Your task to perform on an android device: install app "Walmart Shopping & Grocery" Image 0: 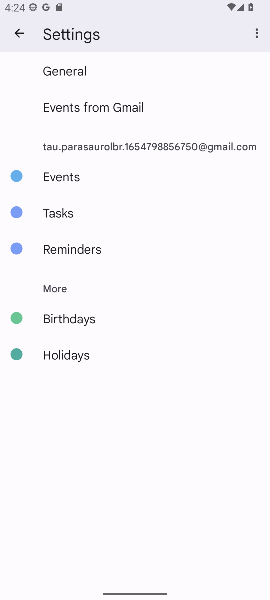
Step 0: press home button
Your task to perform on an android device: install app "Walmart Shopping & Grocery" Image 1: 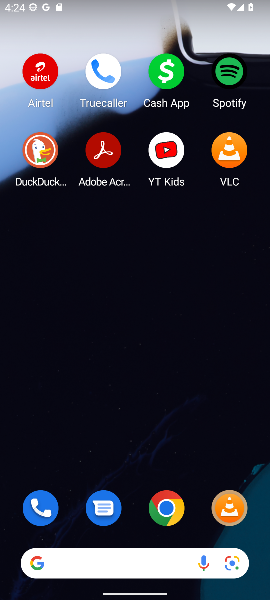
Step 1: drag from (180, 411) to (59, 30)
Your task to perform on an android device: install app "Walmart Shopping & Grocery" Image 2: 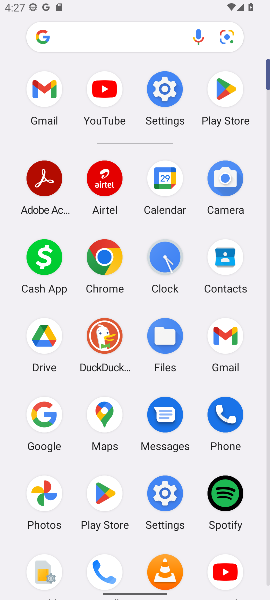
Step 2: click (218, 74)
Your task to perform on an android device: install app "Walmart Shopping & Grocery" Image 3: 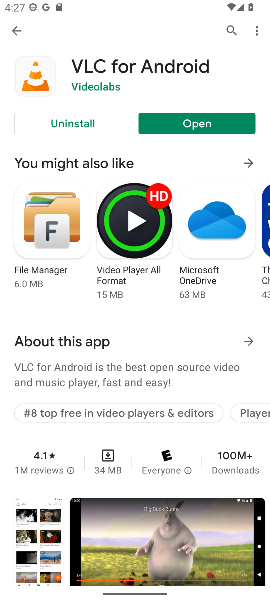
Step 3: press back button
Your task to perform on an android device: install app "Walmart Shopping & Grocery" Image 4: 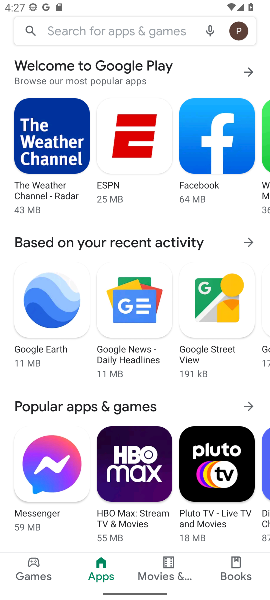
Step 4: click (118, 34)
Your task to perform on an android device: install app "Walmart Shopping & Grocery" Image 5: 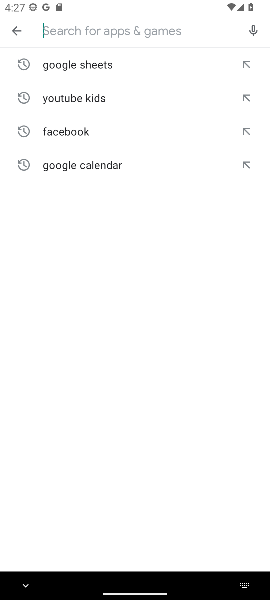
Step 5: type "Walmart Shopping & Grocery"
Your task to perform on an android device: install app "Walmart Shopping & Grocery" Image 6: 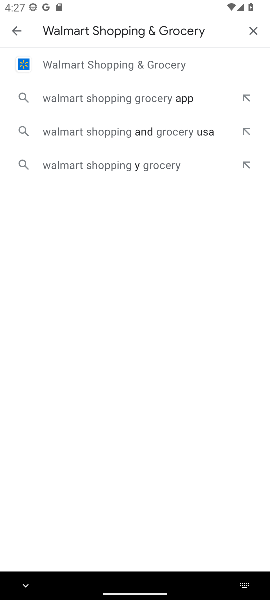
Step 6: click (113, 64)
Your task to perform on an android device: install app "Walmart Shopping & Grocery" Image 7: 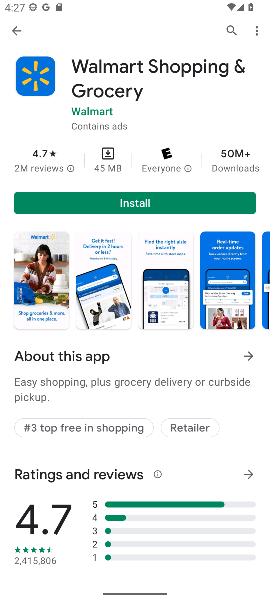
Step 7: click (148, 201)
Your task to perform on an android device: install app "Walmart Shopping & Grocery" Image 8: 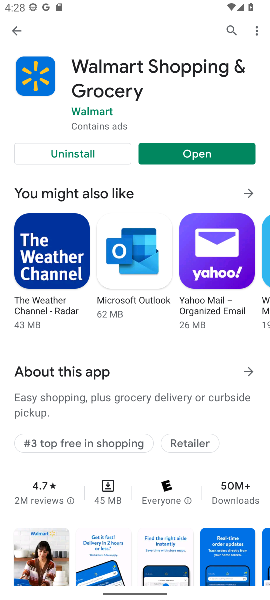
Step 8: task complete